Your task to perform on an android device: check google app version Image 0: 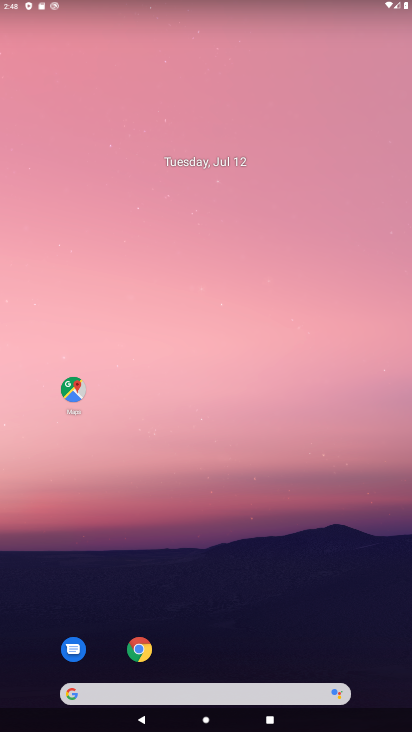
Step 0: drag from (219, 677) to (264, 306)
Your task to perform on an android device: check google app version Image 1: 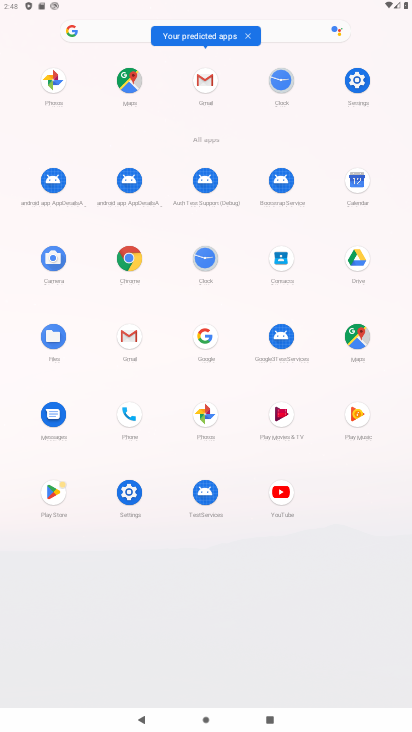
Step 1: click (130, 485)
Your task to perform on an android device: check google app version Image 2: 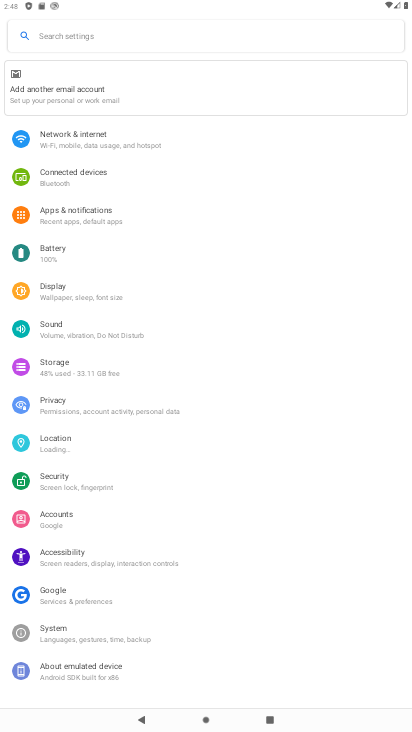
Step 2: click (67, 213)
Your task to perform on an android device: check google app version Image 3: 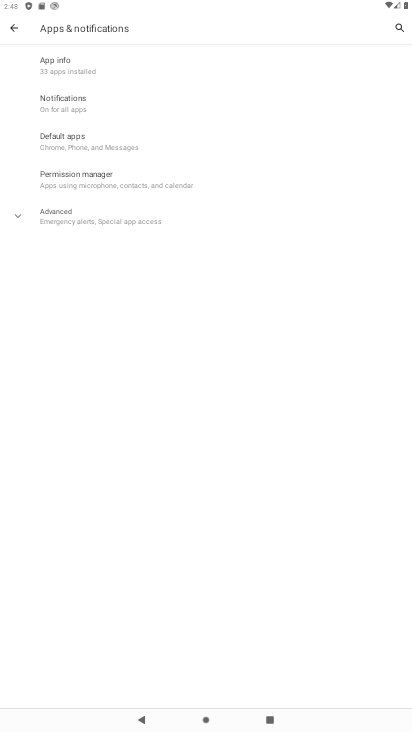
Step 3: click (76, 67)
Your task to perform on an android device: check google app version Image 4: 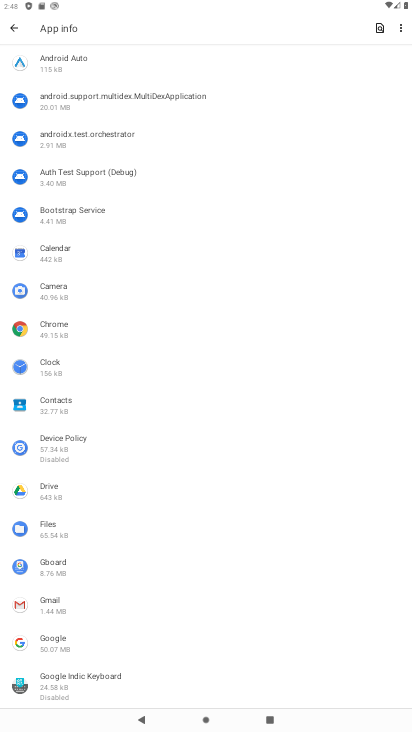
Step 4: drag from (114, 549) to (199, 209)
Your task to perform on an android device: check google app version Image 5: 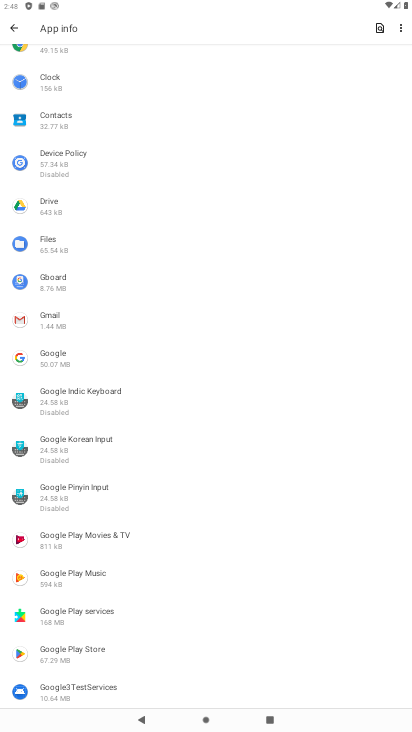
Step 5: click (50, 363)
Your task to perform on an android device: check google app version Image 6: 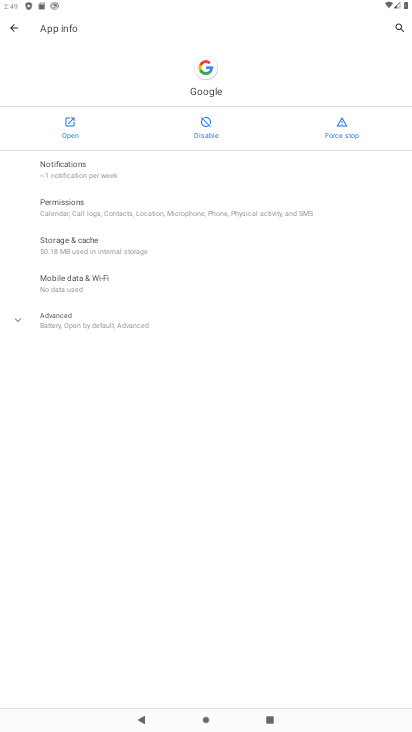
Step 6: click (90, 328)
Your task to perform on an android device: check google app version Image 7: 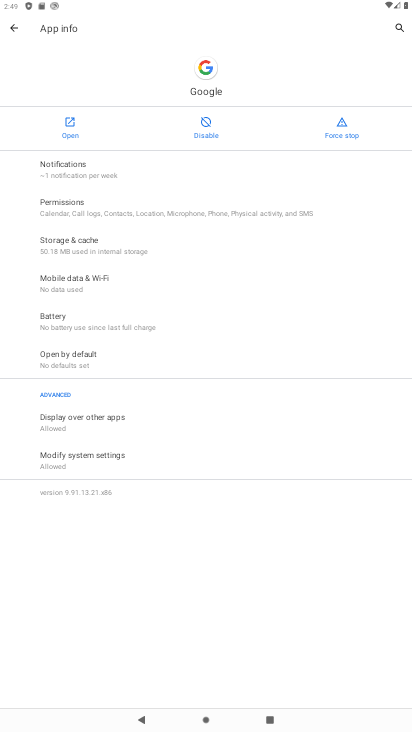
Step 7: task complete